Your task to perform on an android device: turn on translation in the chrome app Image 0: 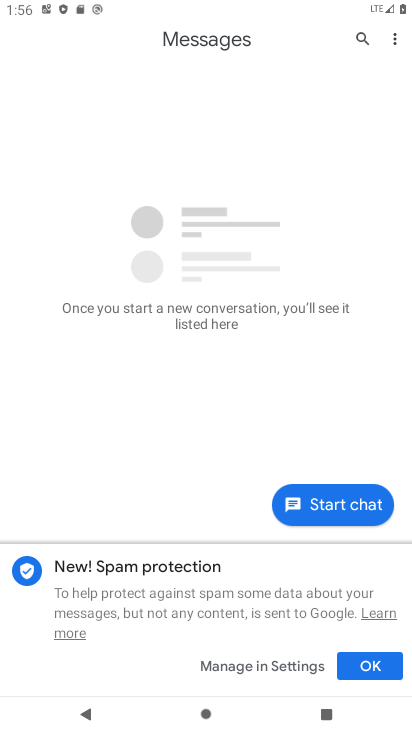
Step 0: press home button
Your task to perform on an android device: turn on translation in the chrome app Image 1: 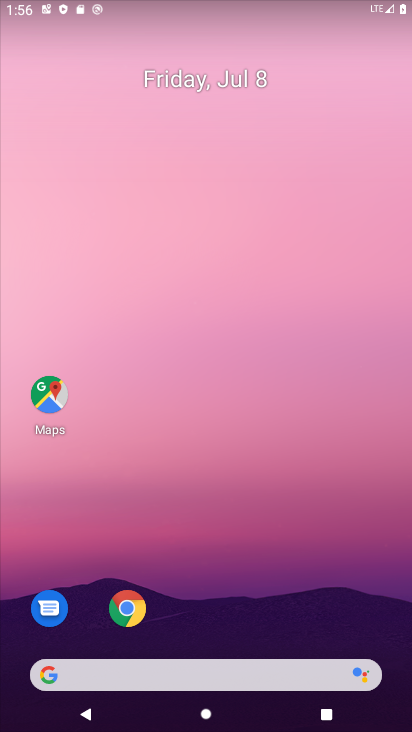
Step 1: click (127, 609)
Your task to perform on an android device: turn on translation in the chrome app Image 2: 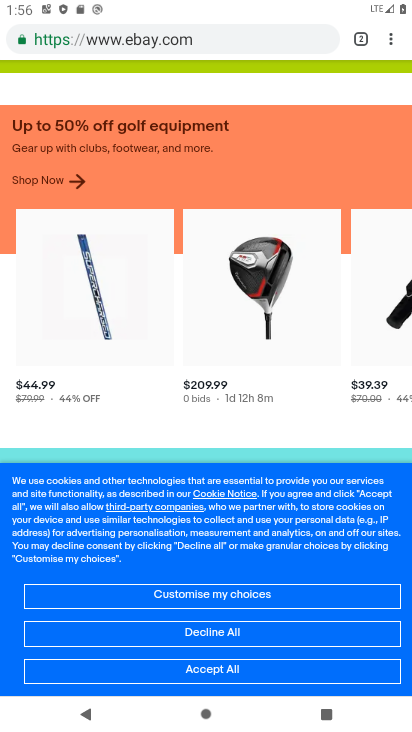
Step 2: click (388, 45)
Your task to perform on an android device: turn on translation in the chrome app Image 3: 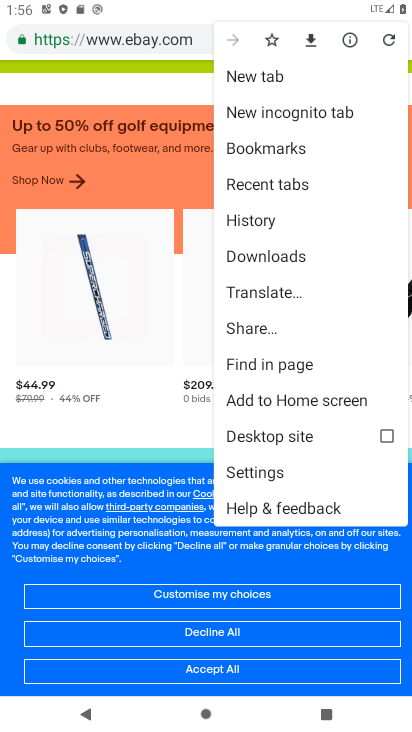
Step 3: click (263, 465)
Your task to perform on an android device: turn on translation in the chrome app Image 4: 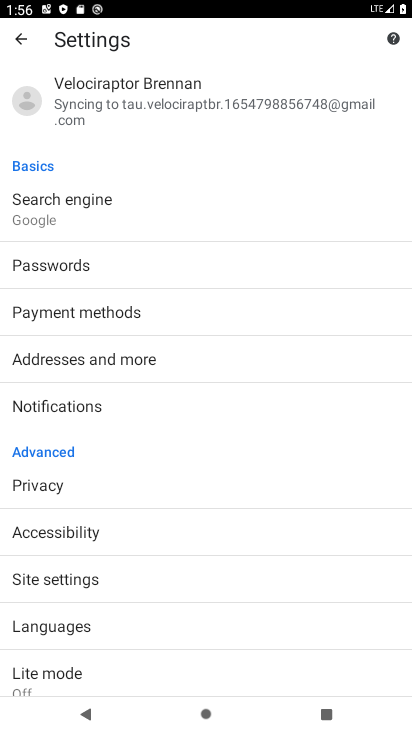
Step 4: click (58, 631)
Your task to perform on an android device: turn on translation in the chrome app Image 5: 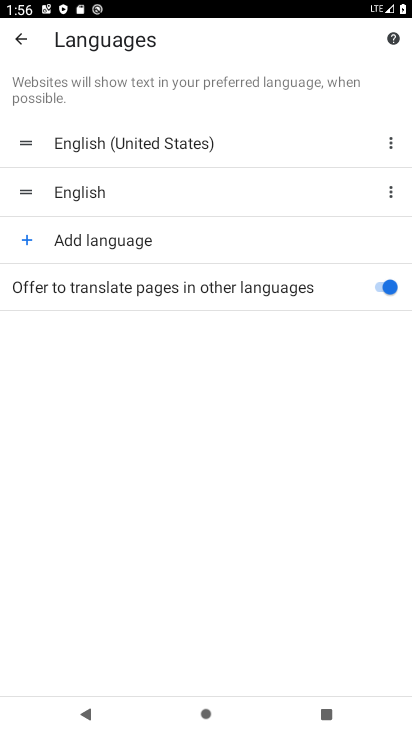
Step 5: task complete